Your task to perform on an android device: clear history in the chrome app Image 0: 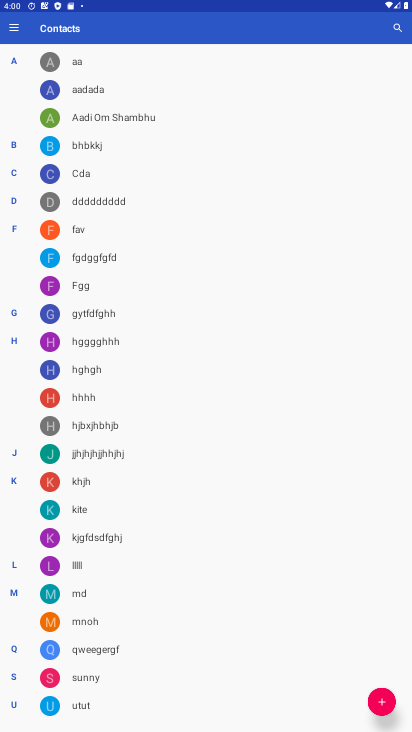
Step 0: press home button
Your task to perform on an android device: clear history in the chrome app Image 1: 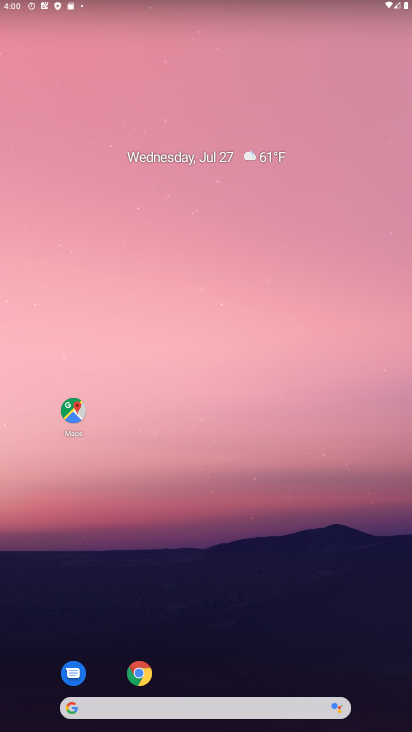
Step 1: click (142, 679)
Your task to perform on an android device: clear history in the chrome app Image 2: 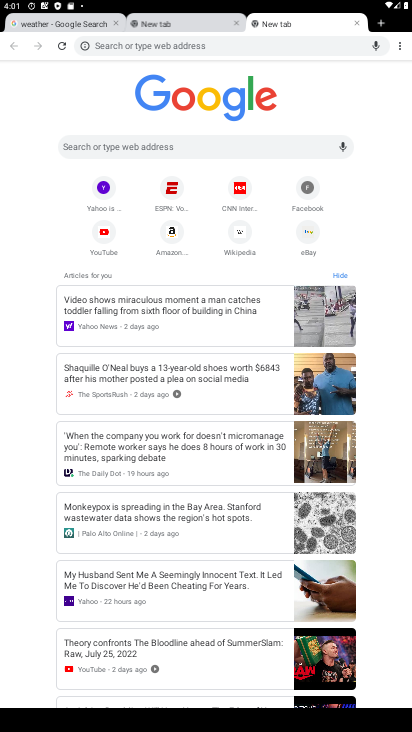
Step 2: click (402, 46)
Your task to perform on an android device: clear history in the chrome app Image 3: 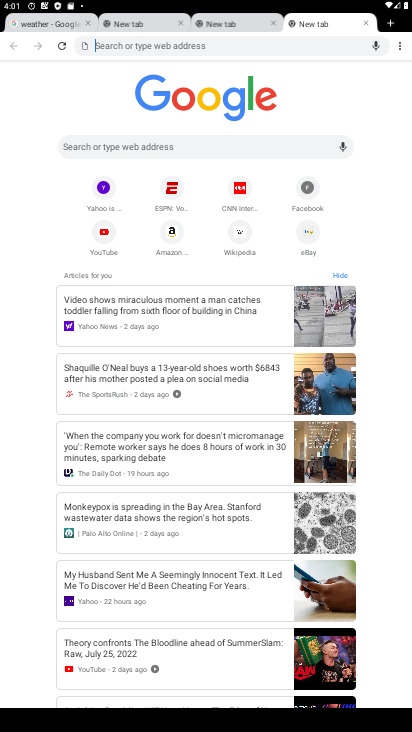
Step 3: click (399, 41)
Your task to perform on an android device: clear history in the chrome app Image 4: 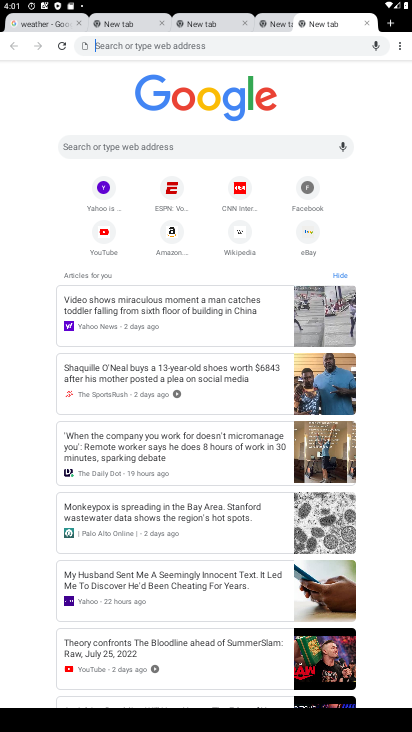
Step 4: task complete